Your task to perform on an android device: Open Chrome and go to settings Image 0: 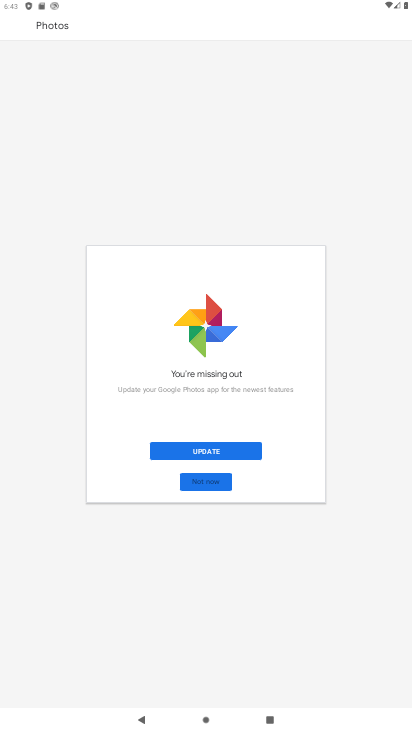
Step 0: press home button
Your task to perform on an android device: Open Chrome and go to settings Image 1: 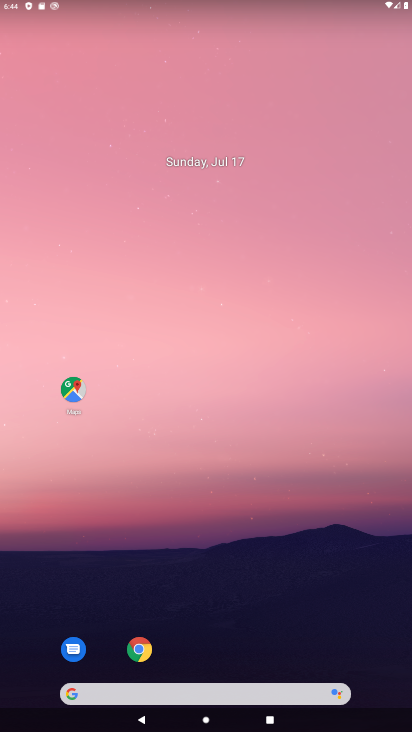
Step 1: click (140, 655)
Your task to perform on an android device: Open Chrome and go to settings Image 2: 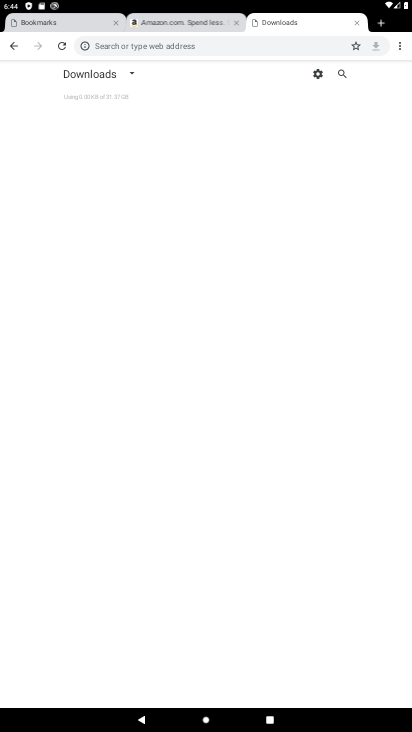
Step 2: click (402, 49)
Your task to perform on an android device: Open Chrome and go to settings Image 3: 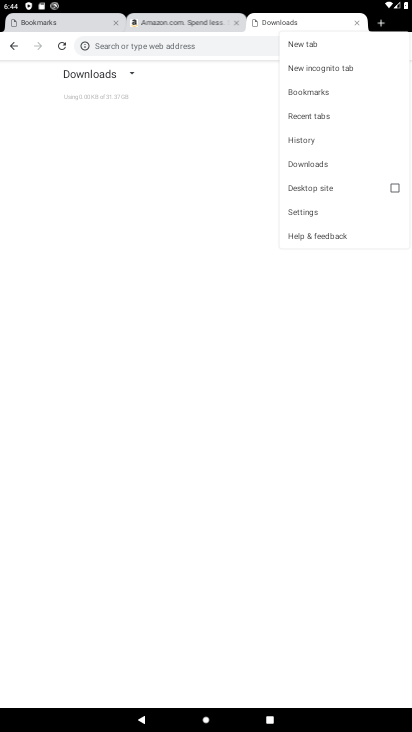
Step 3: click (306, 210)
Your task to perform on an android device: Open Chrome and go to settings Image 4: 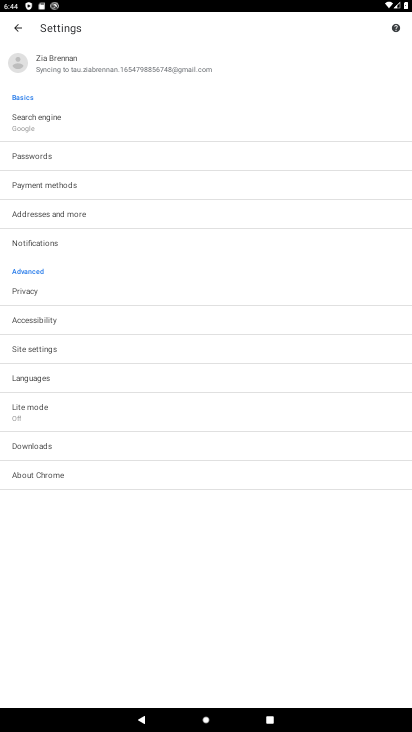
Step 4: task complete